Your task to perform on an android device: move a message to another label in the gmail app Image 0: 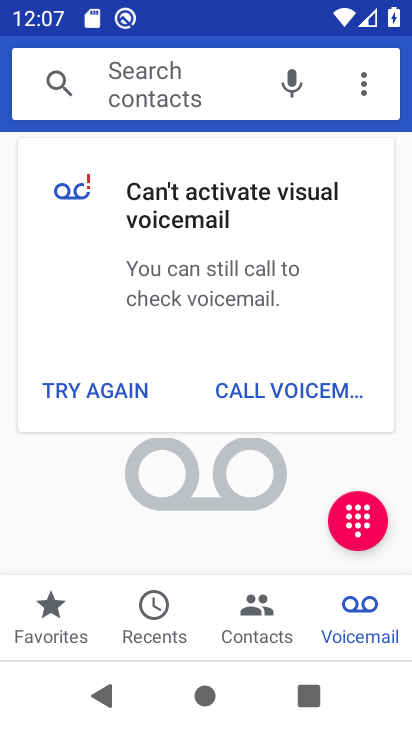
Step 0: press home button
Your task to perform on an android device: move a message to another label in the gmail app Image 1: 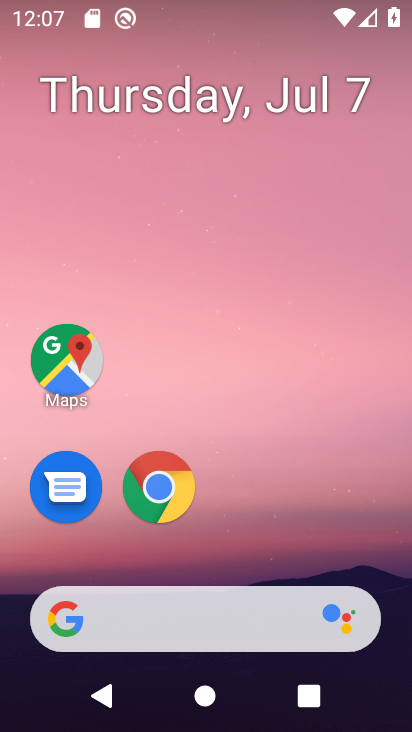
Step 1: drag from (354, 551) to (366, 132)
Your task to perform on an android device: move a message to another label in the gmail app Image 2: 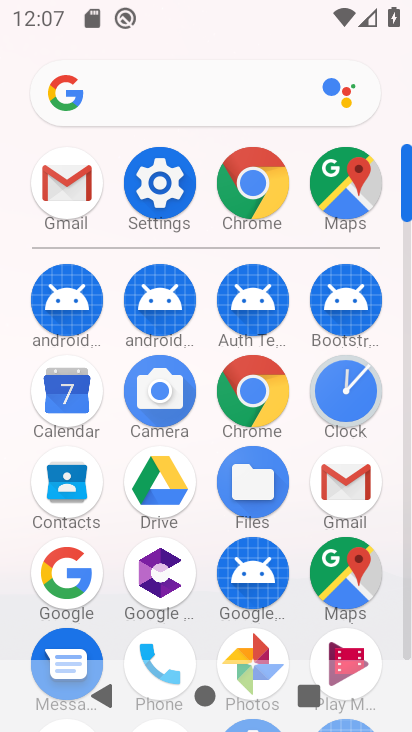
Step 2: click (352, 477)
Your task to perform on an android device: move a message to another label in the gmail app Image 3: 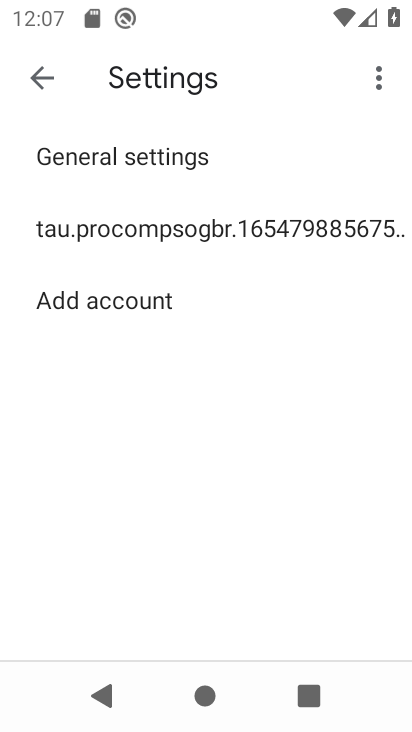
Step 3: click (45, 77)
Your task to perform on an android device: move a message to another label in the gmail app Image 4: 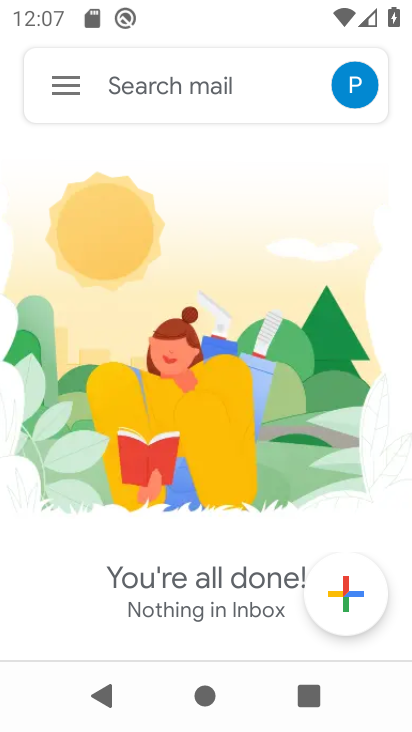
Step 4: task complete